Your task to perform on an android device: turn off smart reply in the gmail app Image 0: 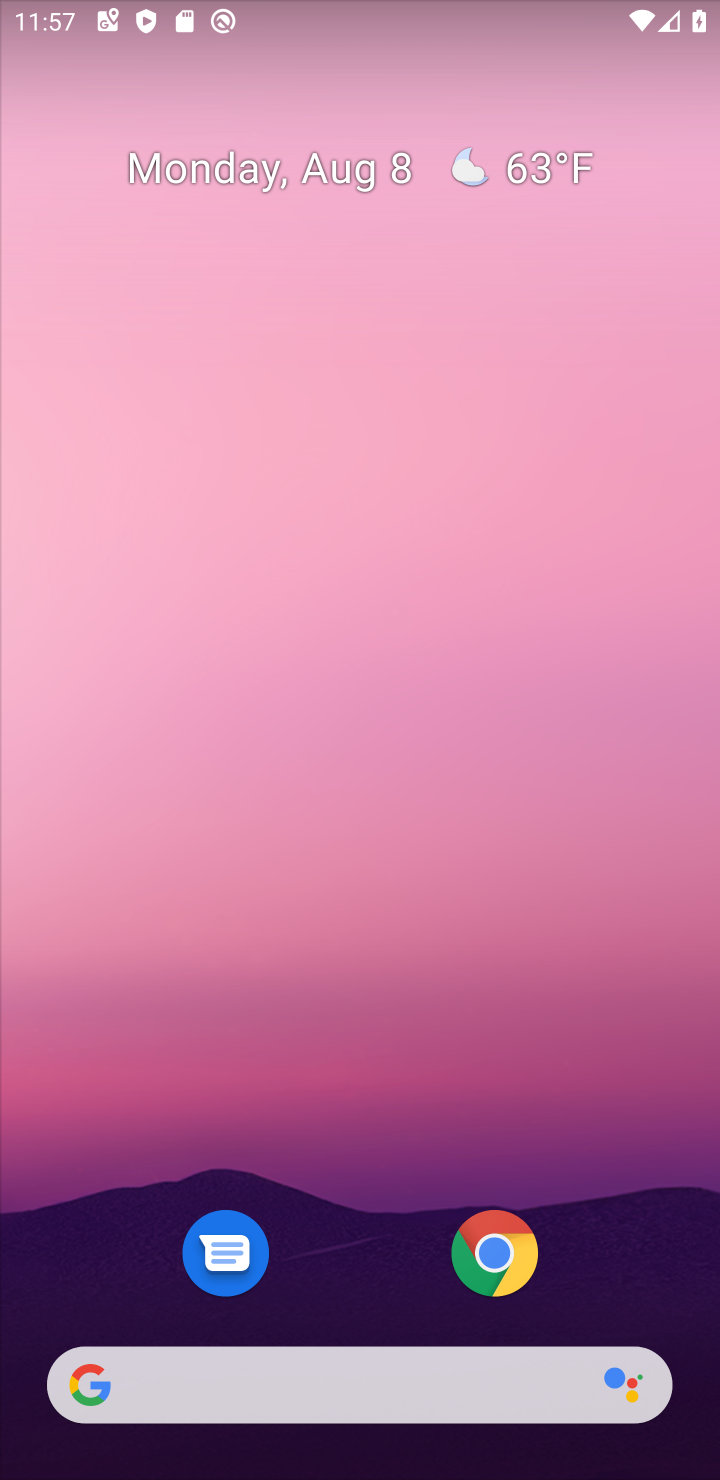
Step 0: drag from (636, 1292) to (228, 40)
Your task to perform on an android device: turn off smart reply in the gmail app Image 1: 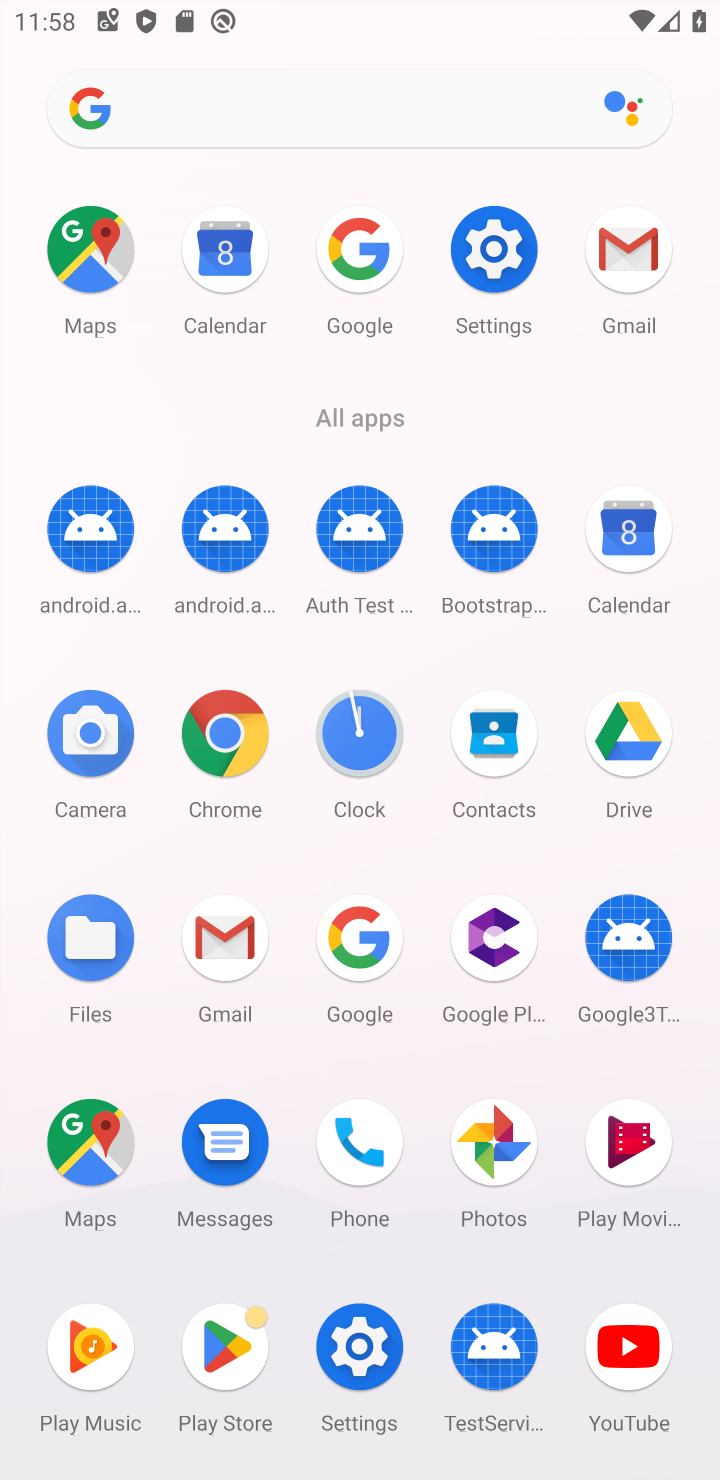
Step 1: click (217, 959)
Your task to perform on an android device: turn off smart reply in the gmail app Image 2: 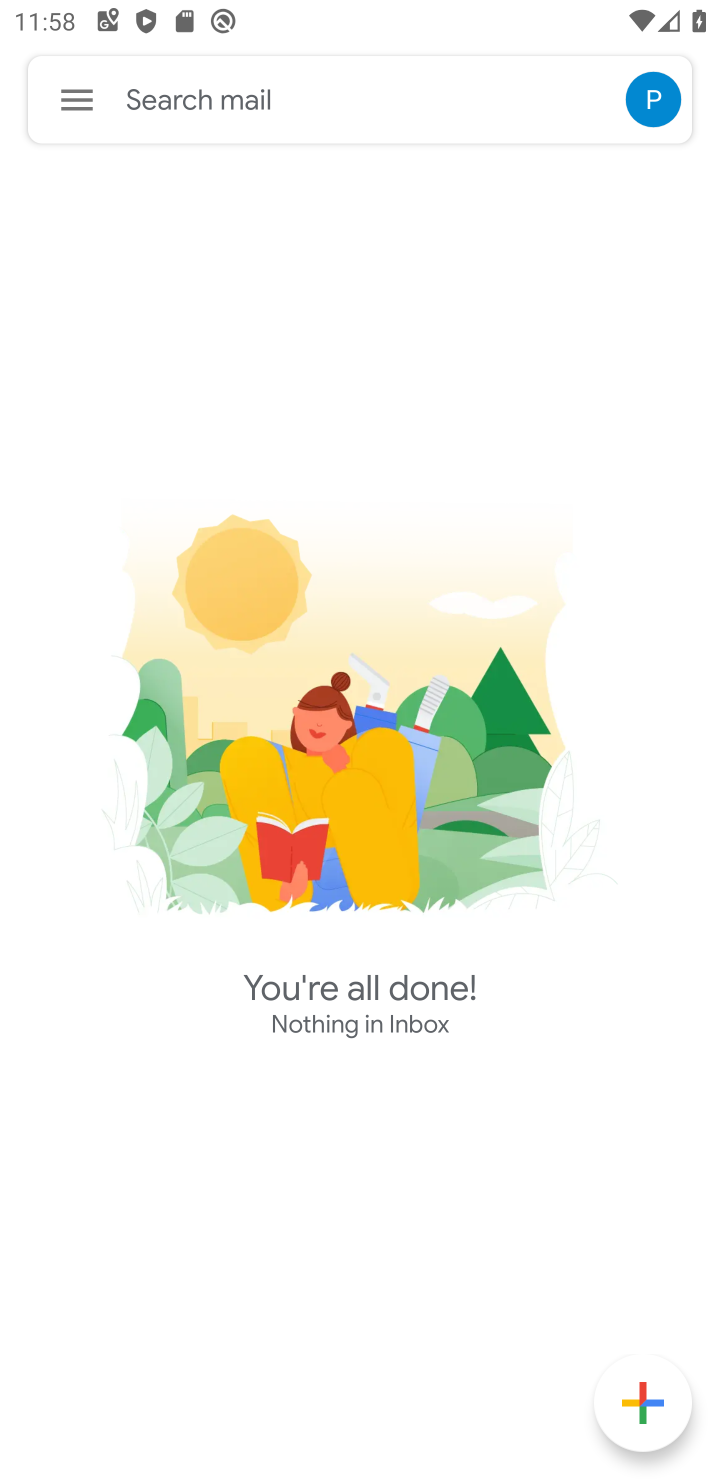
Step 2: click (62, 96)
Your task to perform on an android device: turn off smart reply in the gmail app Image 3: 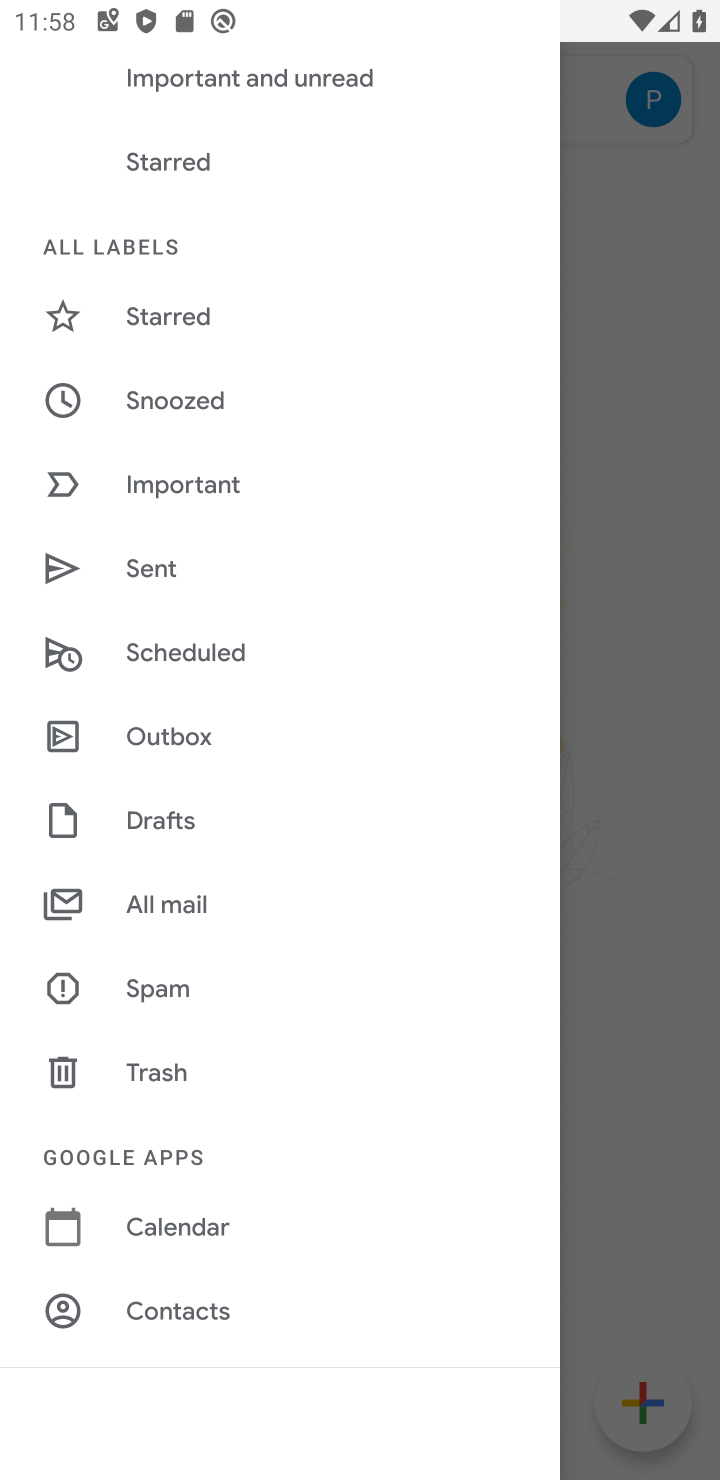
Step 3: drag from (177, 1235) to (273, 58)
Your task to perform on an android device: turn off smart reply in the gmail app Image 4: 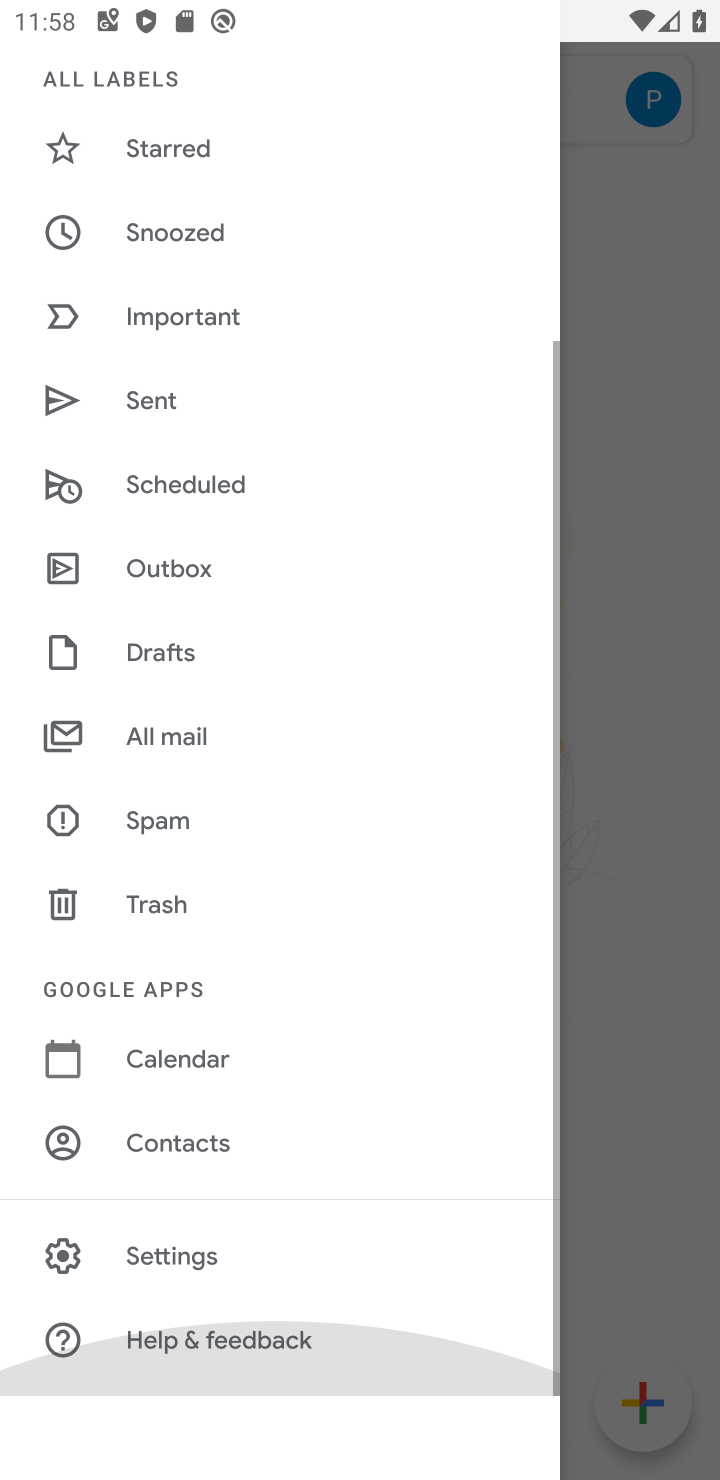
Step 4: click (185, 1282)
Your task to perform on an android device: turn off smart reply in the gmail app Image 5: 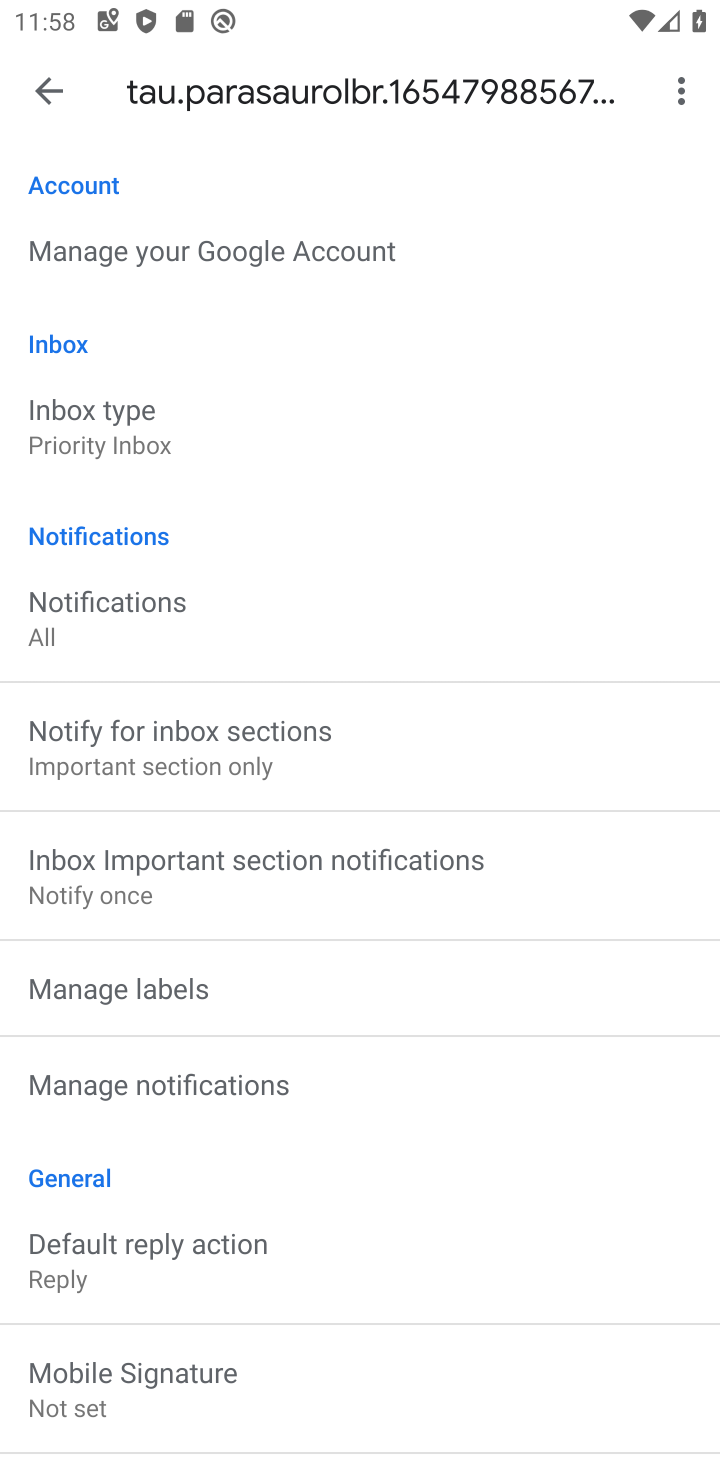
Step 5: drag from (170, 1416) to (523, 63)
Your task to perform on an android device: turn off smart reply in the gmail app Image 6: 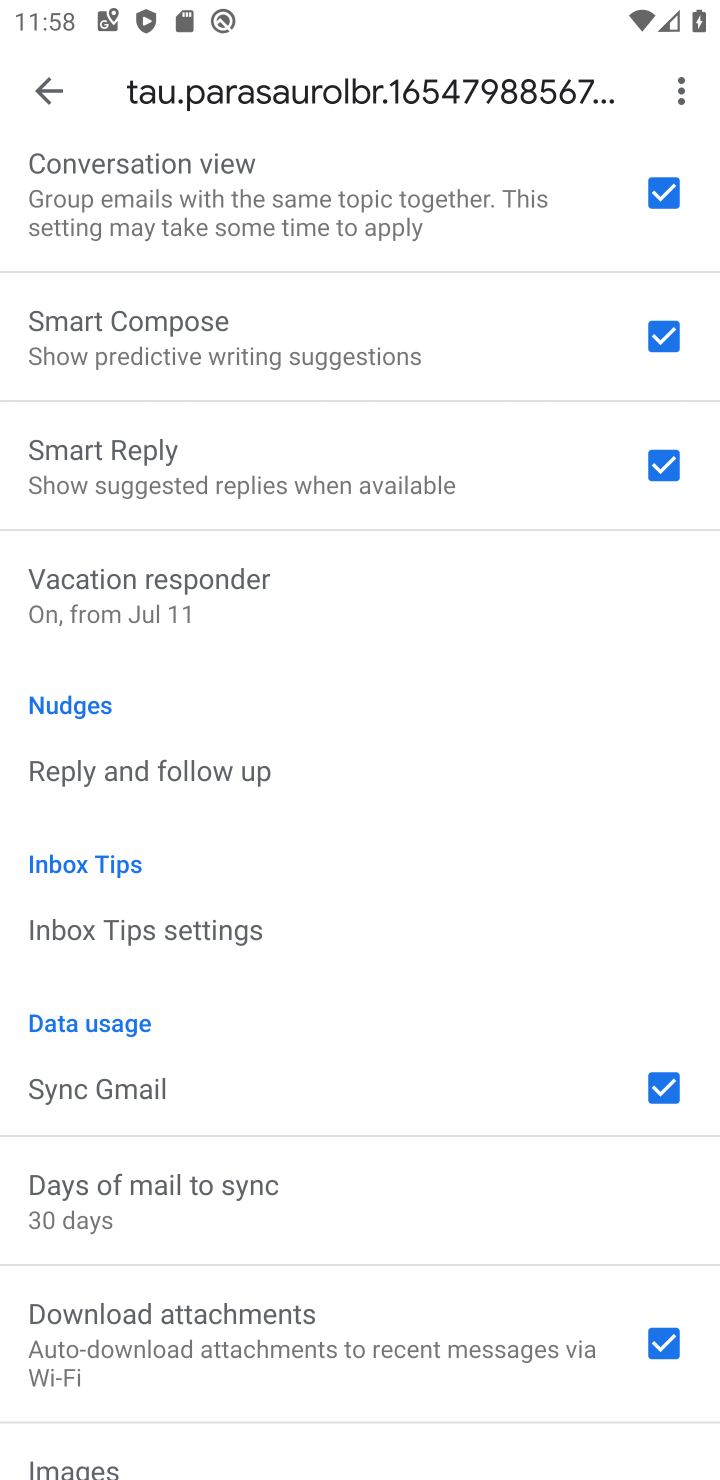
Step 6: click (271, 437)
Your task to perform on an android device: turn off smart reply in the gmail app Image 7: 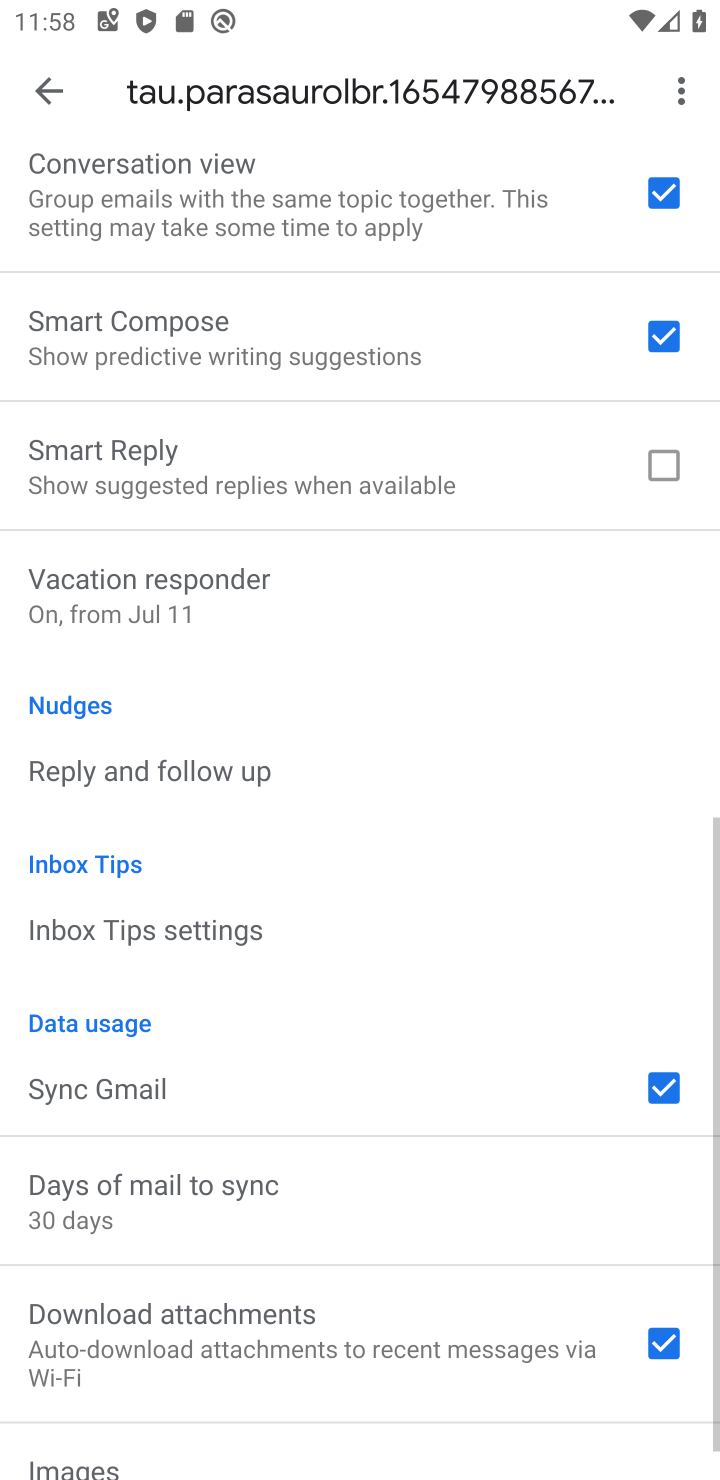
Step 7: task complete